Your task to perform on an android device: turn off javascript in the chrome app Image 0: 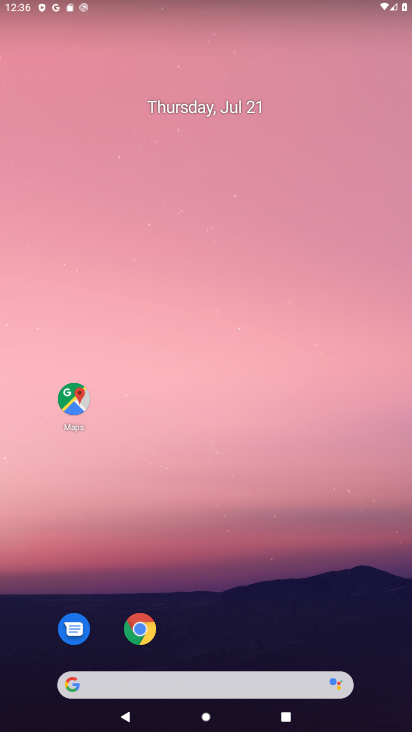
Step 0: click (405, 541)
Your task to perform on an android device: turn off javascript in the chrome app Image 1: 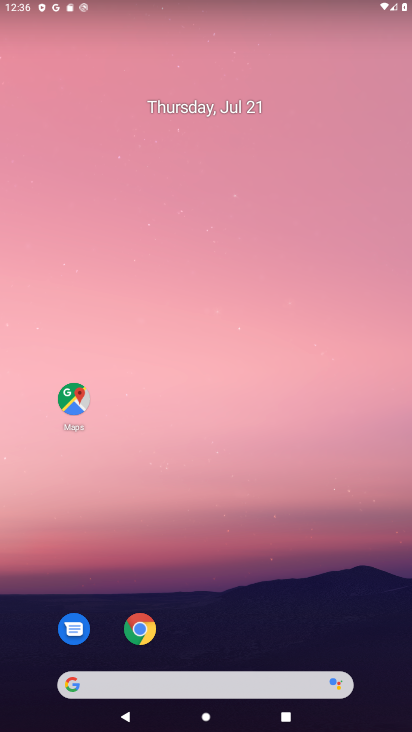
Step 1: drag from (245, 557) to (186, 173)
Your task to perform on an android device: turn off javascript in the chrome app Image 2: 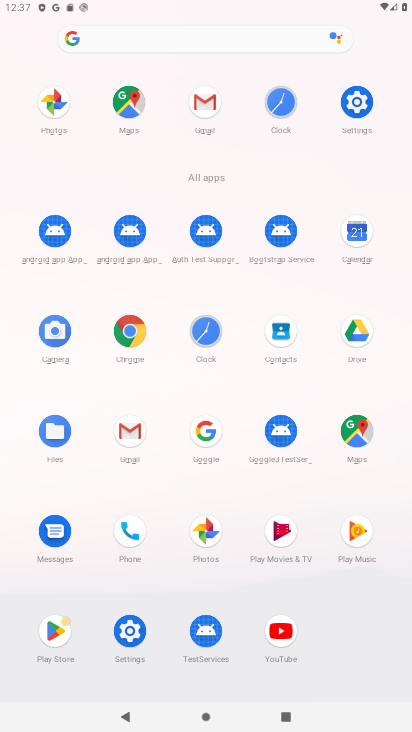
Step 2: click (137, 332)
Your task to perform on an android device: turn off javascript in the chrome app Image 3: 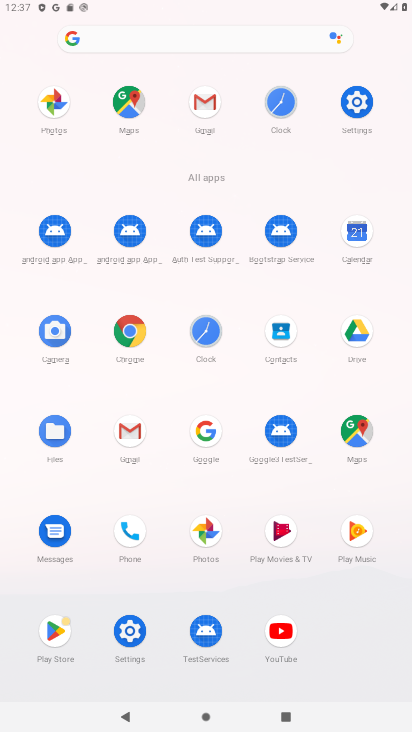
Step 3: click (136, 332)
Your task to perform on an android device: turn off javascript in the chrome app Image 4: 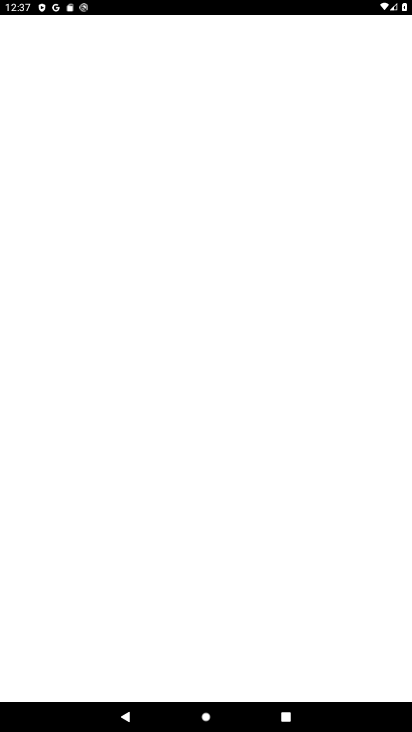
Step 4: click (143, 326)
Your task to perform on an android device: turn off javascript in the chrome app Image 5: 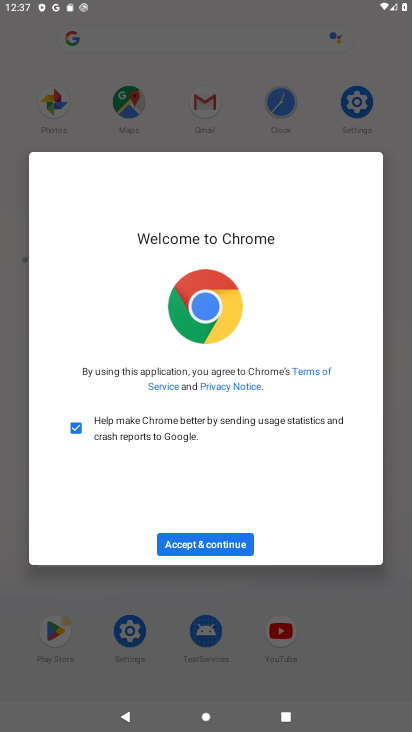
Step 5: click (215, 544)
Your task to perform on an android device: turn off javascript in the chrome app Image 6: 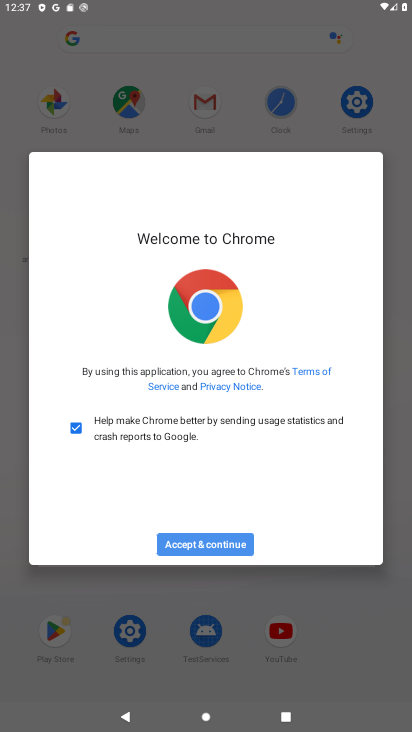
Step 6: click (219, 542)
Your task to perform on an android device: turn off javascript in the chrome app Image 7: 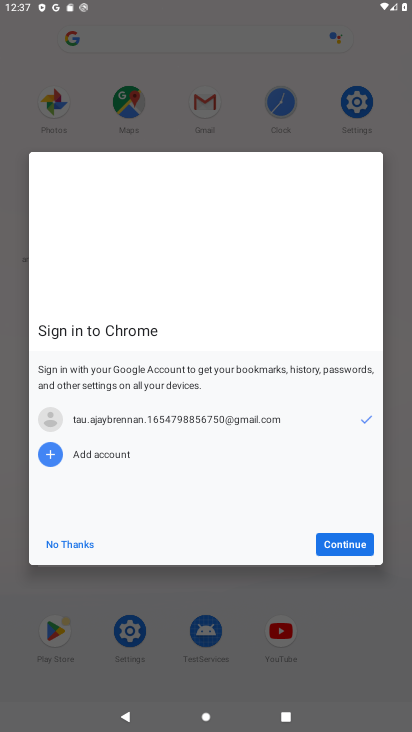
Step 7: click (65, 554)
Your task to perform on an android device: turn off javascript in the chrome app Image 8: 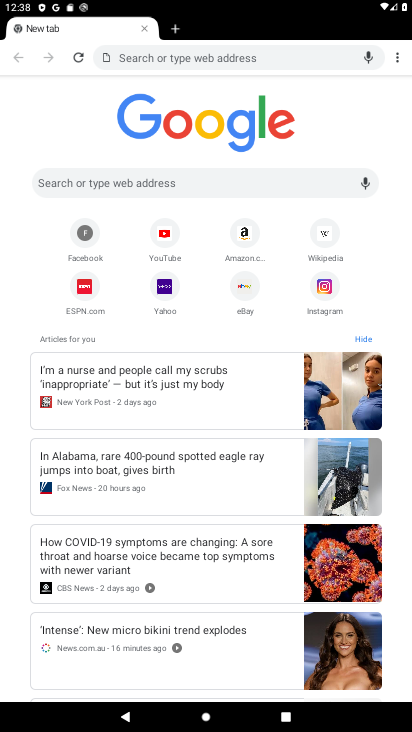
Step 8: drag from (400, 60) to (295, 274)
Your task to perform on an android device: turn off javascript in the chrome app Image 9: 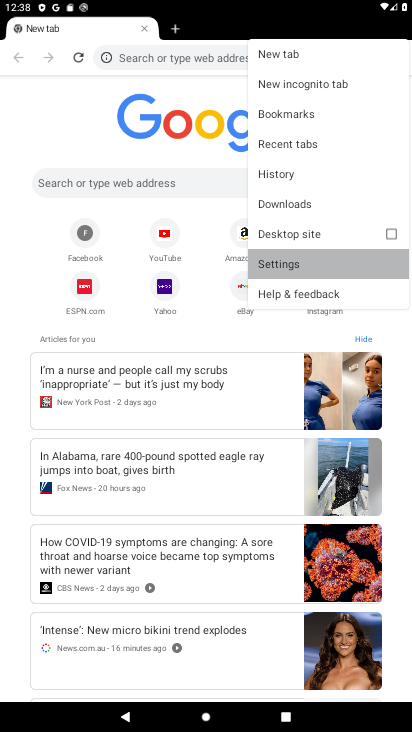
Step 9: click (295, 275)
Your task to perform on an android device: turn off javascript in the chrome app Image 10: 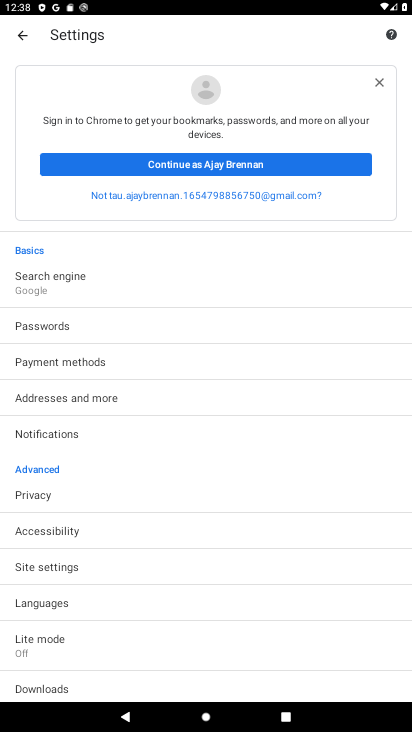
Step 10: drag from (42, 616) to (17, 256)
Your task to perform on an android device: turn off javascript in the chrome app Image 11: 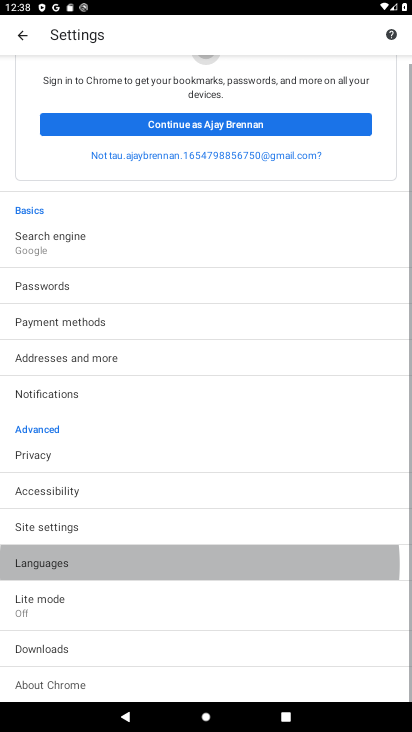
Step 11: drag from (40, 538) to (43, 327)
Your task to perform on an android device: turn off javascript in the chrome app Image 12: 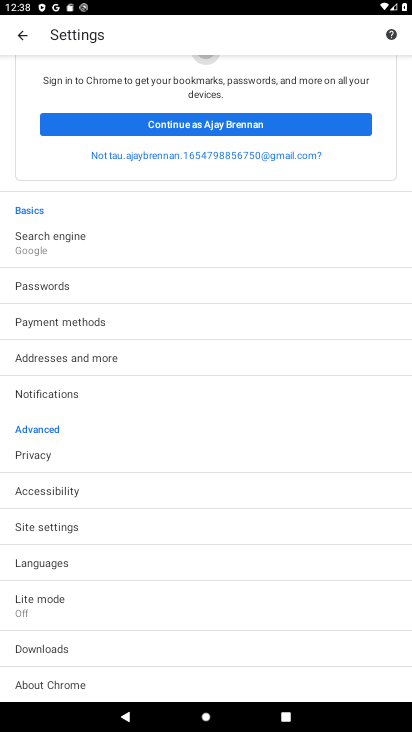
Step 12: drag from (47, 562) to (56, 348)
Your task to perform on an android device: turn off javascript in the chrome app Image 13: 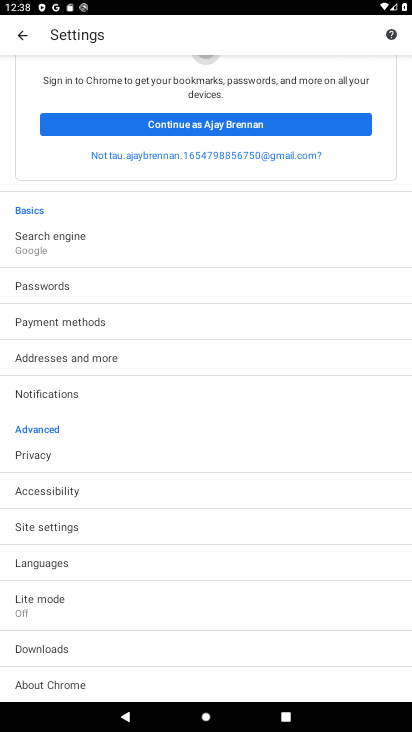
Step 13: click (38, 523)
Your task to perform on an android device: turn off javascript in the chrome app Image 14: 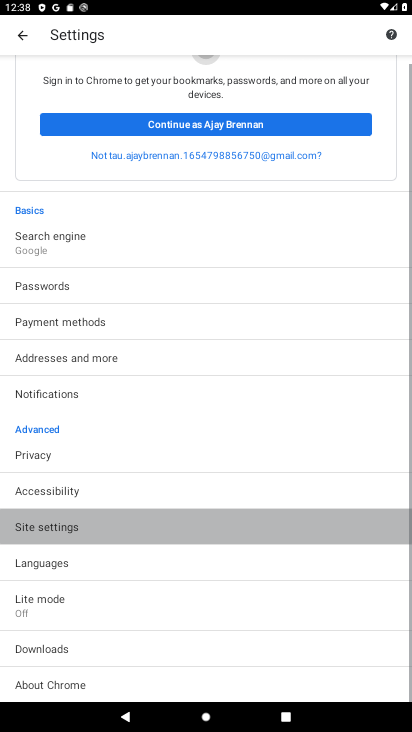
Step 14: click (41, 528)
Your task to perform on an android device: turn off javascript in the chrome app Image 15: 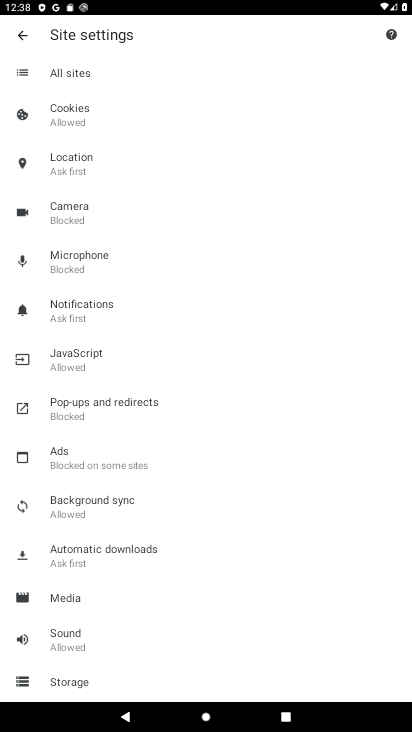
Step 15: click (86, 352)
Your task to perform on an android device: turn off javascript in the chrome app Image 16: 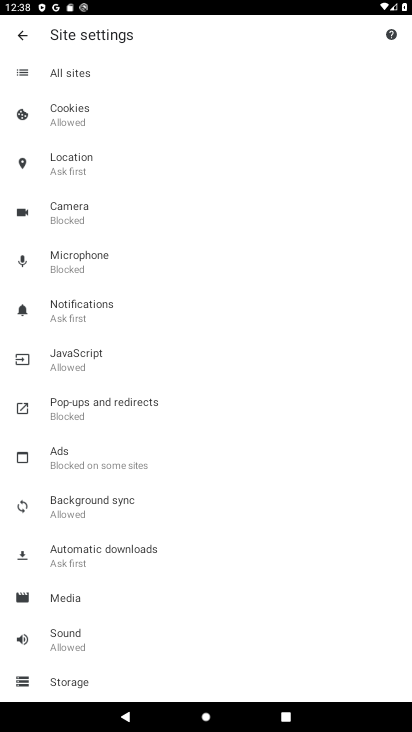
Step 16: click (86, 352)
Your task to perform on an android device: turn off javascript in the chrome app Image 17: 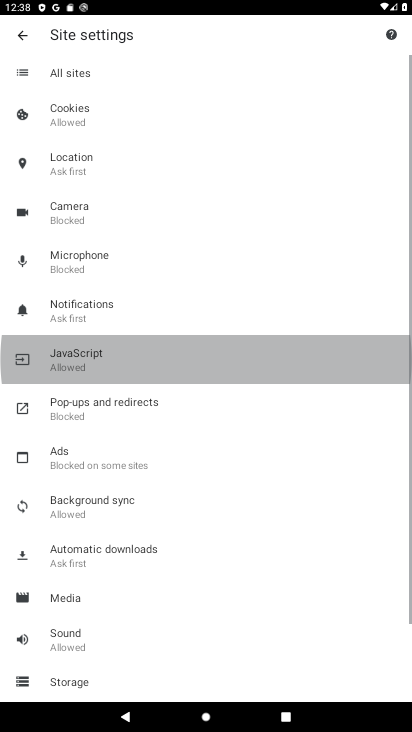
Step 17: click (85, 353)
Your task to perform on an android device: turn off javascript in the chrome app Image 18: 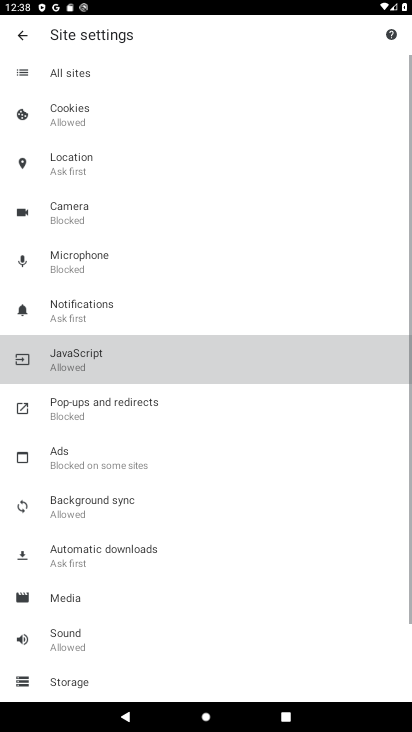
Step 18: click (85, 353)
Your task to perform on an android device: turn off javascript in the chrome app Image 19: 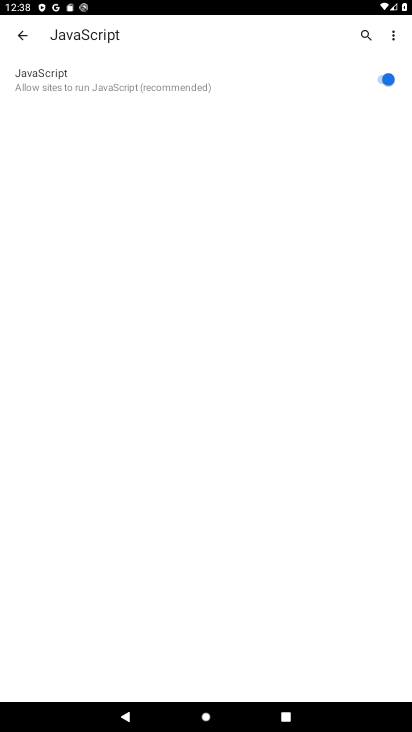
Step 19: click (385, 76)
Your task to perform on an android device: turn off javascript in the chrome app Image 20: 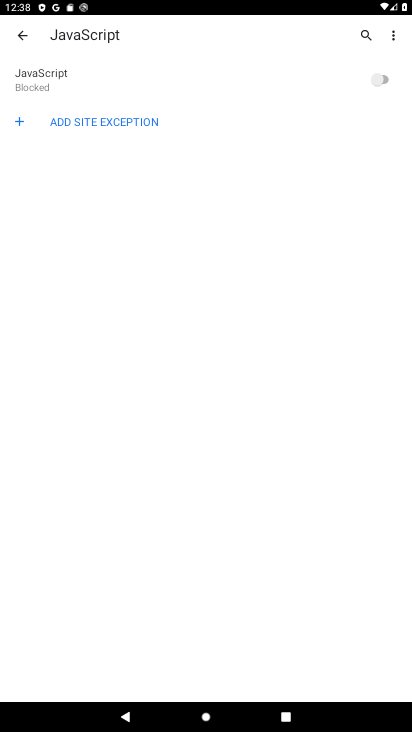
Step 20: task complete